Your task to perform on an android device: turn on priority inbox in the gmail app Image 0: 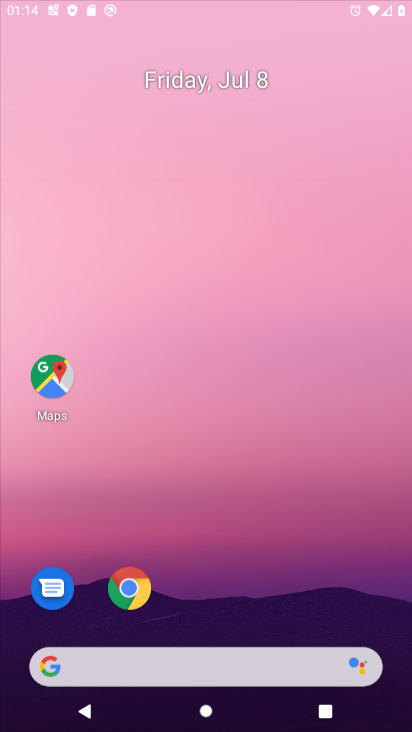
Step 0: click (283, 156)
Your task to perform on an android device: turn on priority inbox in the gmail app Image 1: 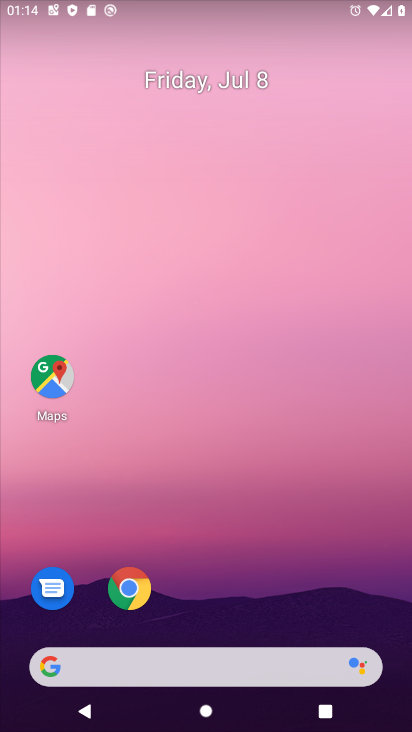
Step 1: drag from (190, 627) to (171, 204)
Your task to perform on an android device: turn on priority inbox in the gmail app Image 2: 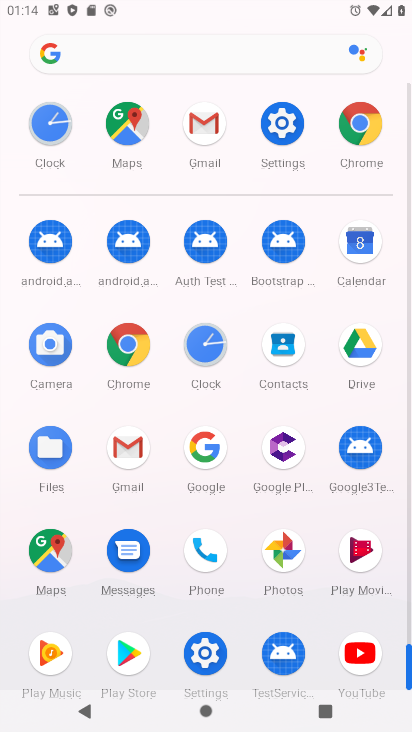
Step 2: click (198, 126)
Your task to perform on an android device: turn on priority inbox in the gmail app Image 3: 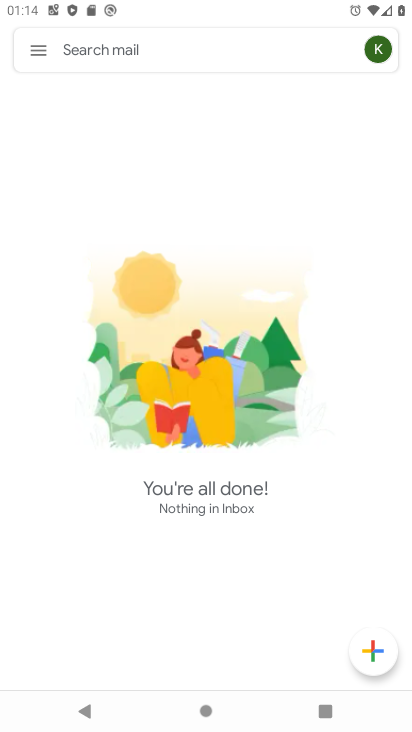
Step 3: drag from (212, 527) to (237, 168)
Your task to perform on an android device: turn on priority inbox in the gmail app Image 4: 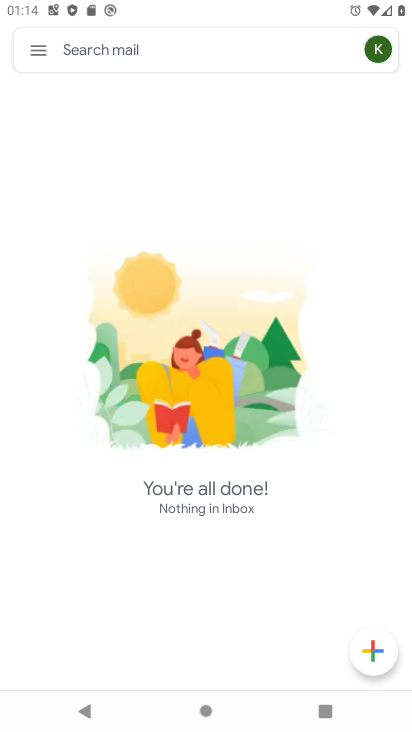
Step 4: click (37, 47)
Your task to perform on an android device: turn on priority inbox in the gmail app Image 5: 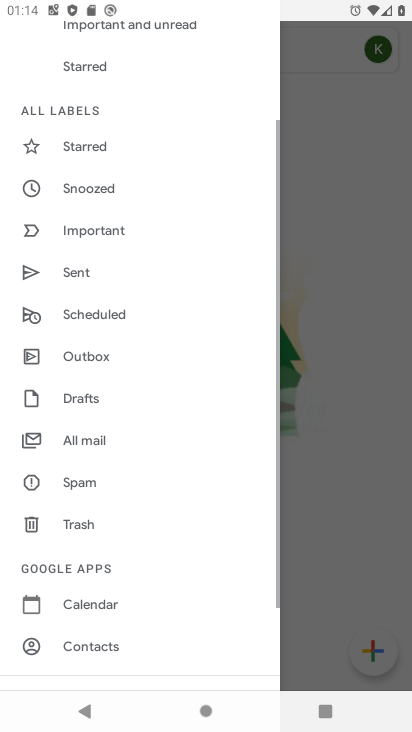
Step 5: drag from (156, 497) to (159, 132)
Your task to perform on an android device: turn on priority inbox in the gmail app Image 6: 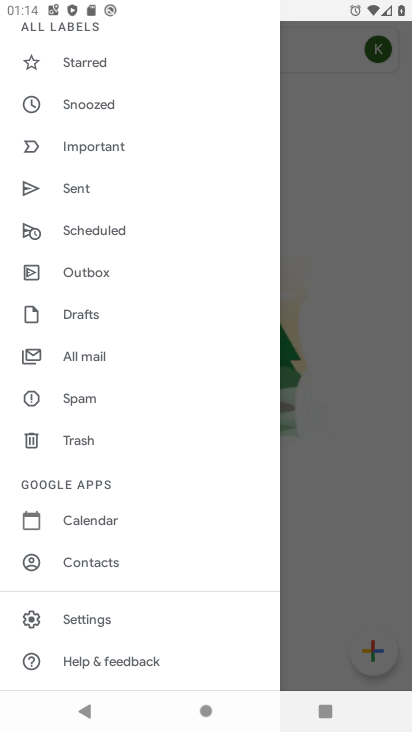
Step 6: click (87, 617)
Your task to perform on an android device: turn on priority inbox in the gmail app Image 7: 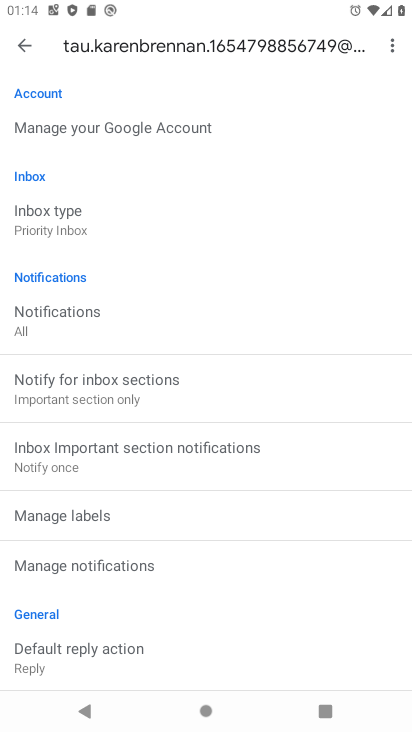
Step 7: click (79, 197)
Your task to perform on an android device: turn on priority inbox in the gmail app Image 8: 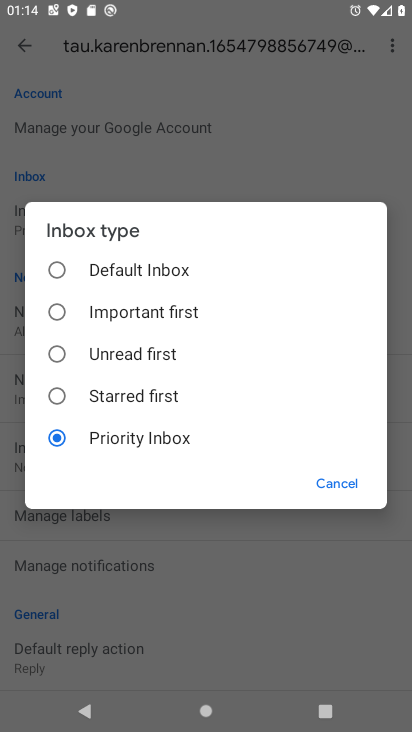
Step 8: task complete